Your task to perform on an android device: What is the news today? Image 0: 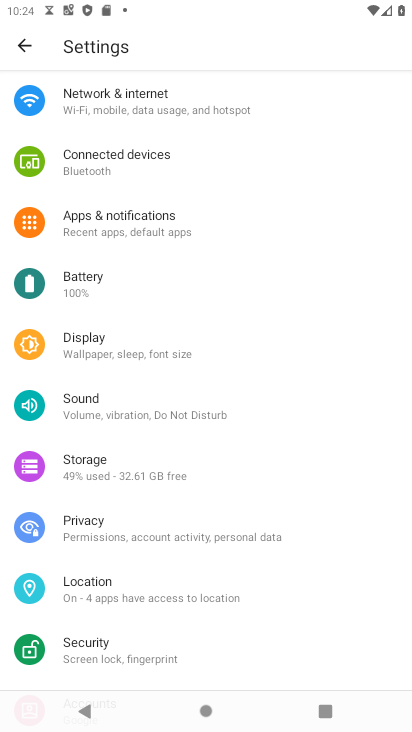
Step 0: press home button
Your task to perform on an android device: What is the news today? Image 1: 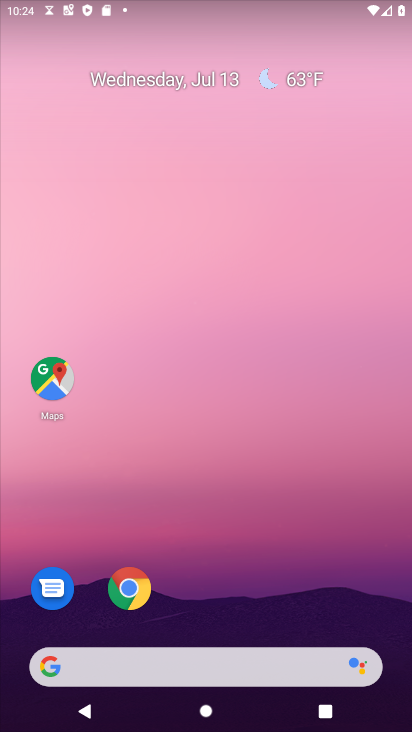
Step 1: click (152, 670)
Your task to perform on an android device: What is the news today? Image 2: 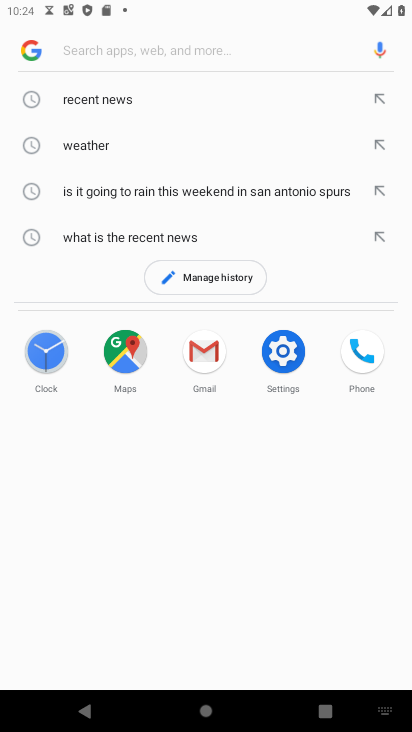
Step 2: click (111, 24)
Your task to perform on an android device: What is the news today? Image 3: 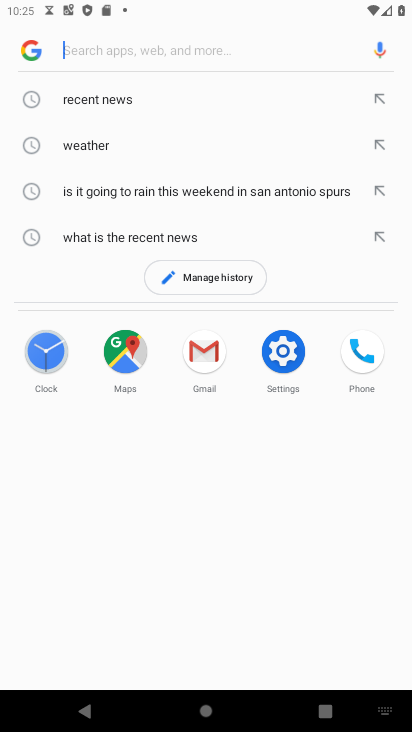
Step 3: type "news today"
Your task to perform on an android device: What is the news today? Image 4: 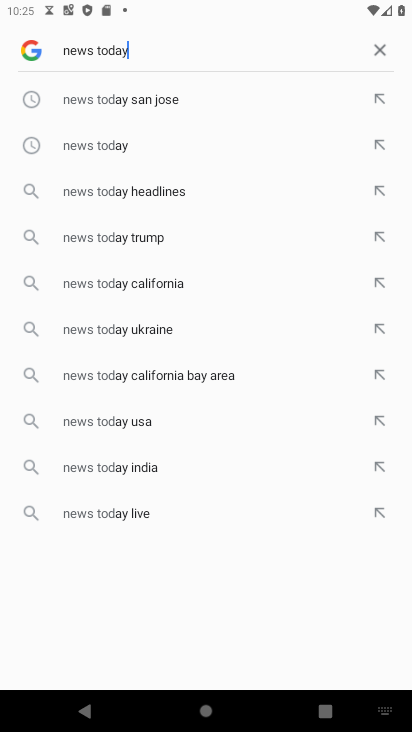
Step 4: type ""
Your task to perform on an android device: What is the news today? Image 5: 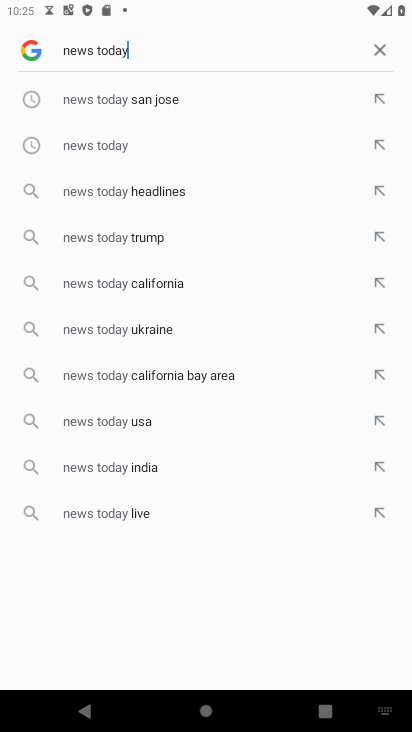
Step 5: click (77, 147)
Your task to perform on an android device: What is the news today? Image 6: 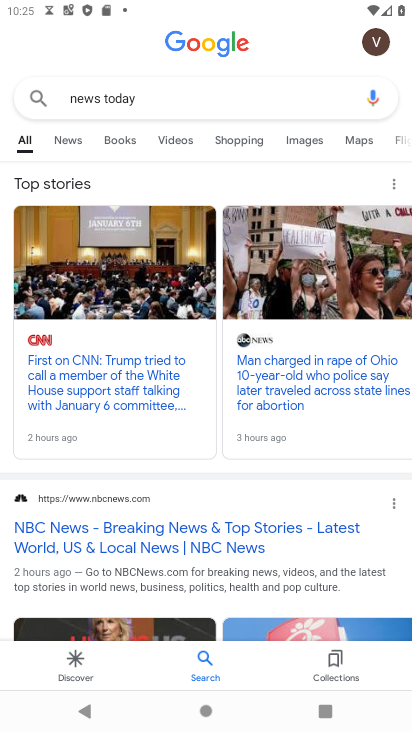
Step 6: task complete